Your task to perform on an android device: Show me recent news Image 0: 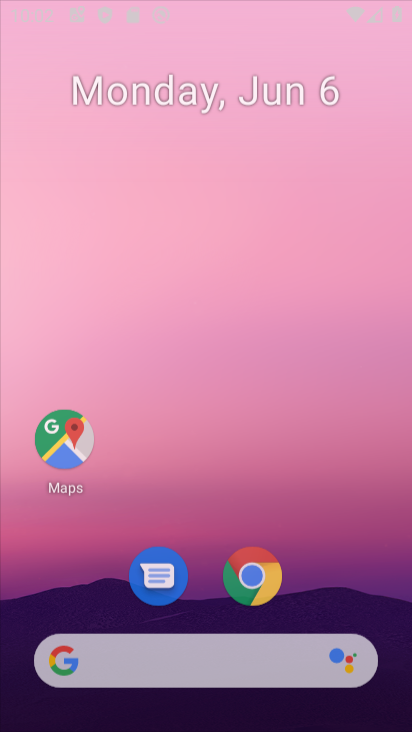
Step 0: drag from (273, 57) to (316, 89)
Your task to perform on an android device: Show me recent news Image 1: 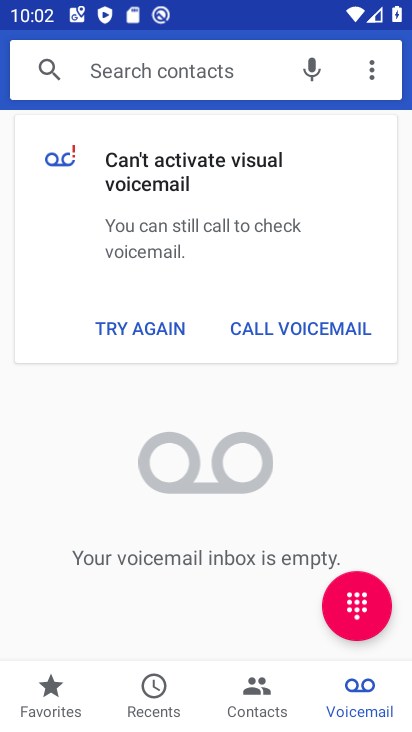
Step 1: press home button
Your task to perform on an android device: Show me recent news Image 2: 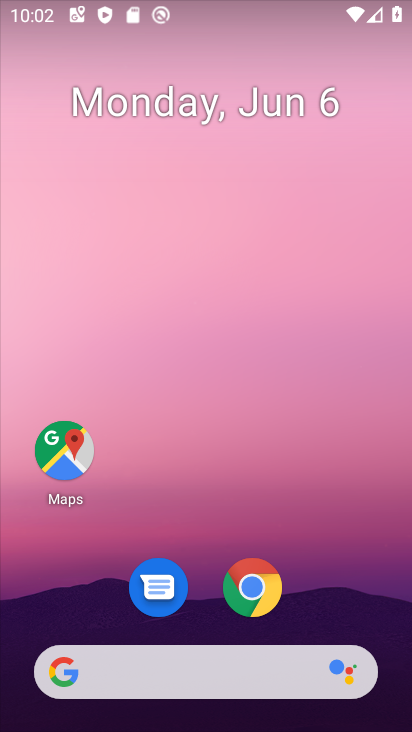
Step 2: click (250, 663)
Your task to perform on an android device: Show me recent news Image 3: 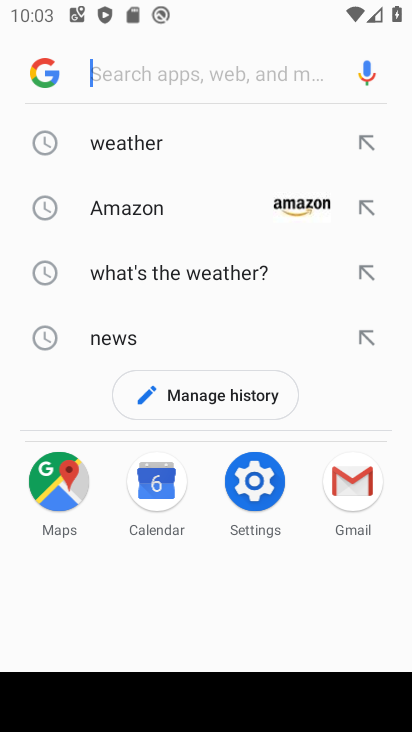
Step 3: type "recent news"
Your task to perform on an android device: Show me recent news Image 4: 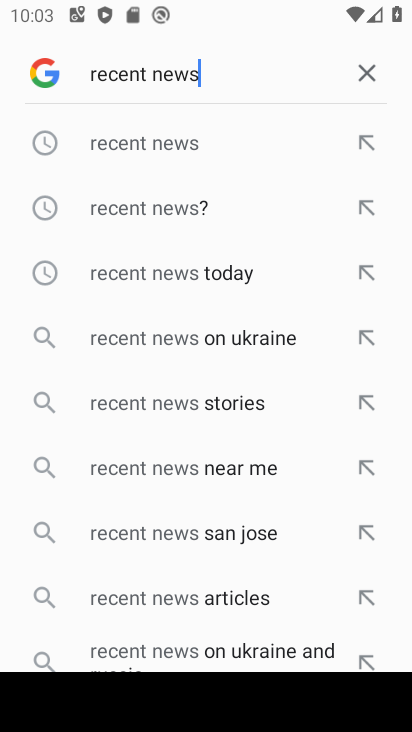
Step 4: click (155, 135)
Your task to perform on an android device: Show me recent news Image 5: 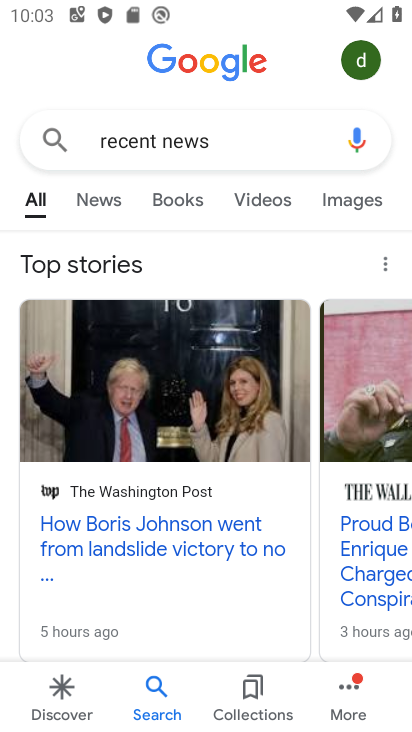
Step 5: task complete